Your task to perform on an android device: Open Google Chrome Image 0: 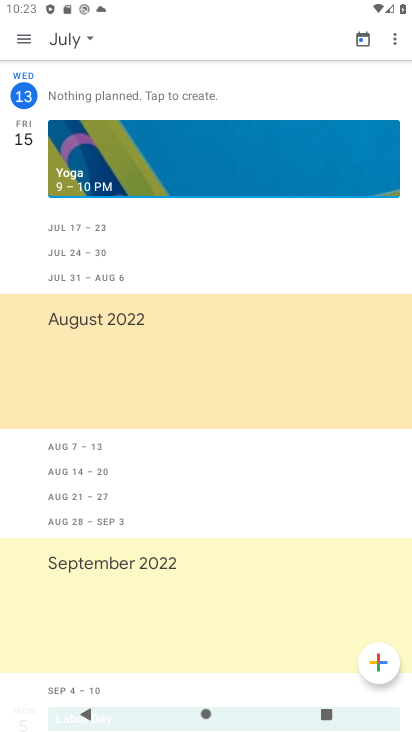
Step 0: press home button
Your task to perform on an android device: Open Google Chrome Image 1: 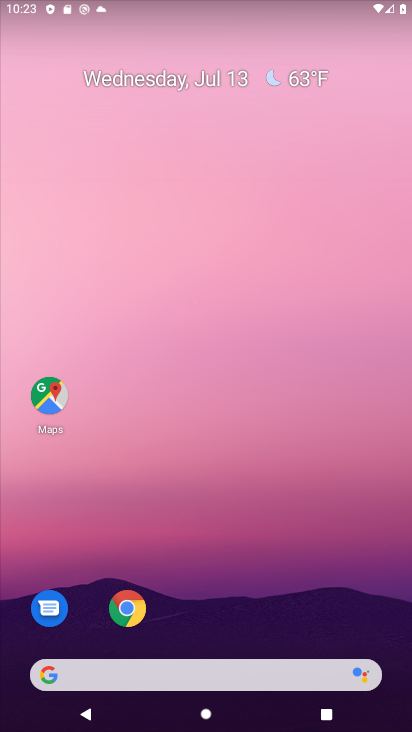
Step 1: click (133, 610)
Your task to perform on an android device: Open Google Chrome Image 2: 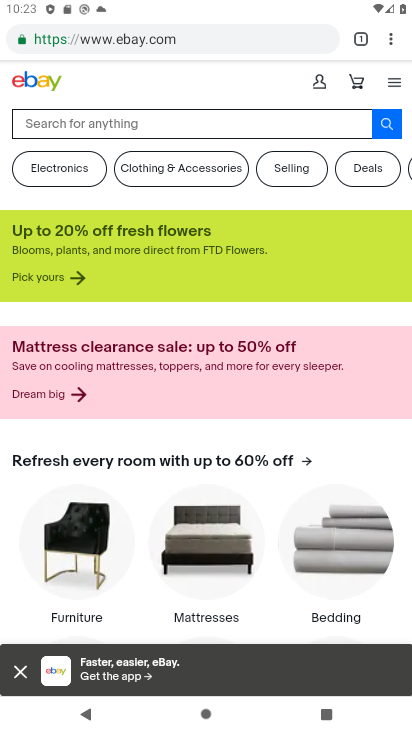
Step 2: task complete